Your task to perform on an android device: What's the latest video from GameTrailers? Image 0: 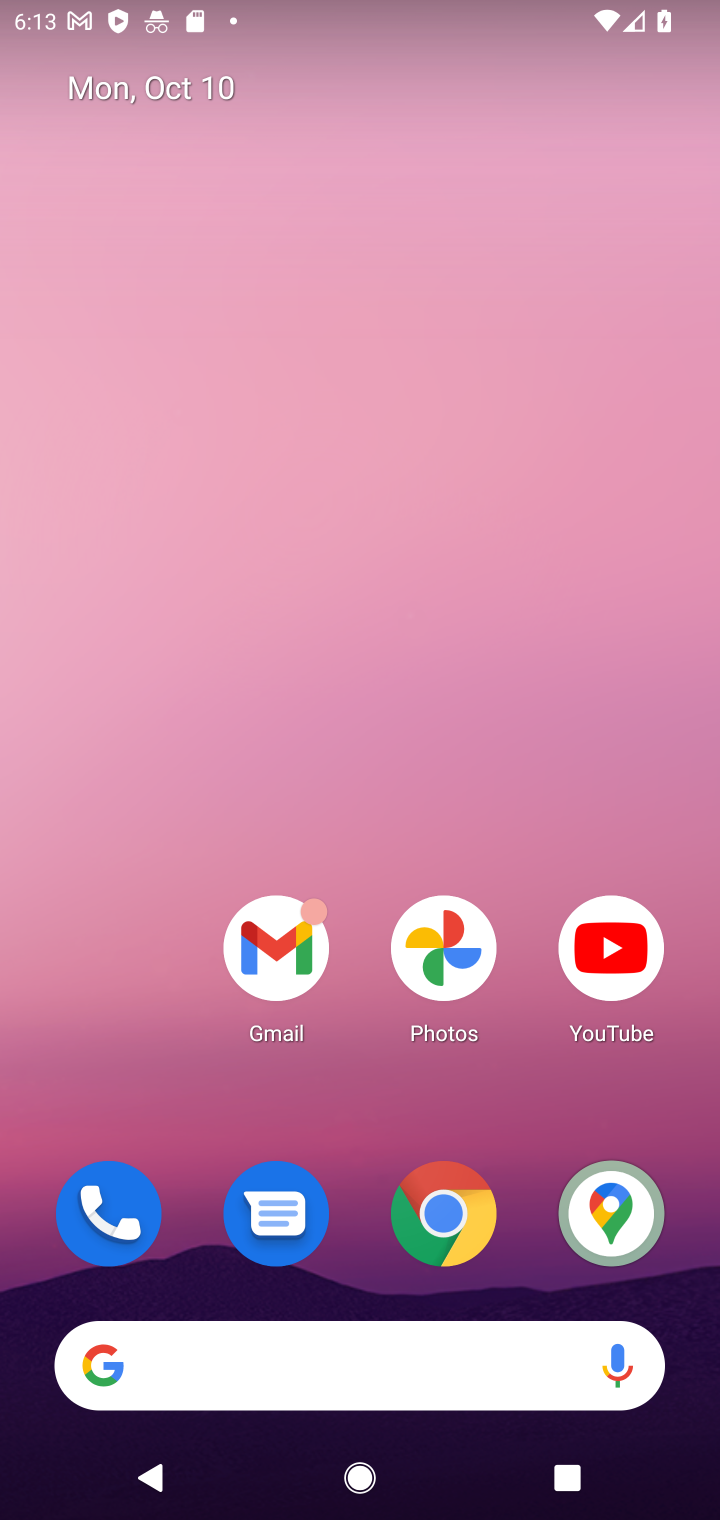
Step 0: click (614, 909)
Your task to perform on an android device: What's the latest video from GameTrailers? Image 1: 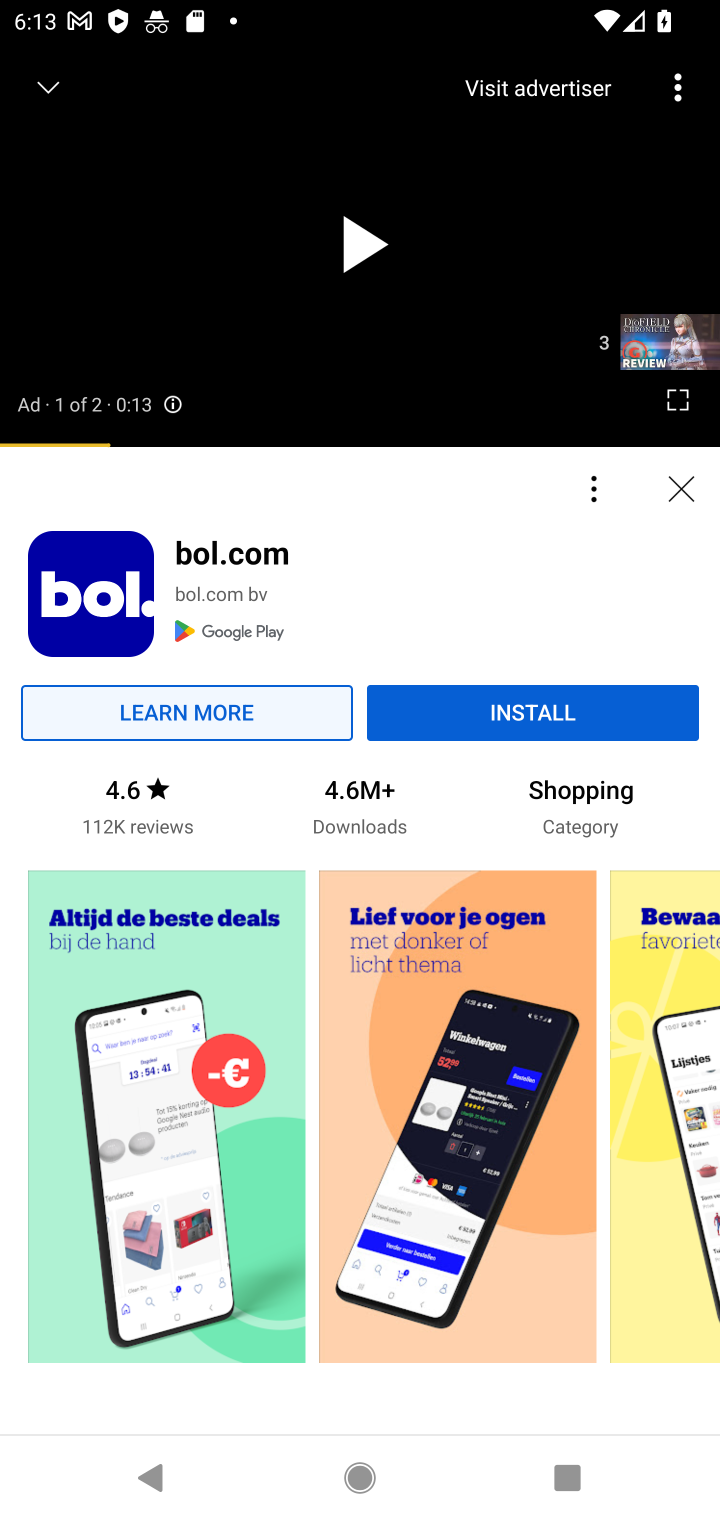
Step 1: click (42, 96)
Your task to perform on an android device: What's the latest video from GameTrailers? Image 2: 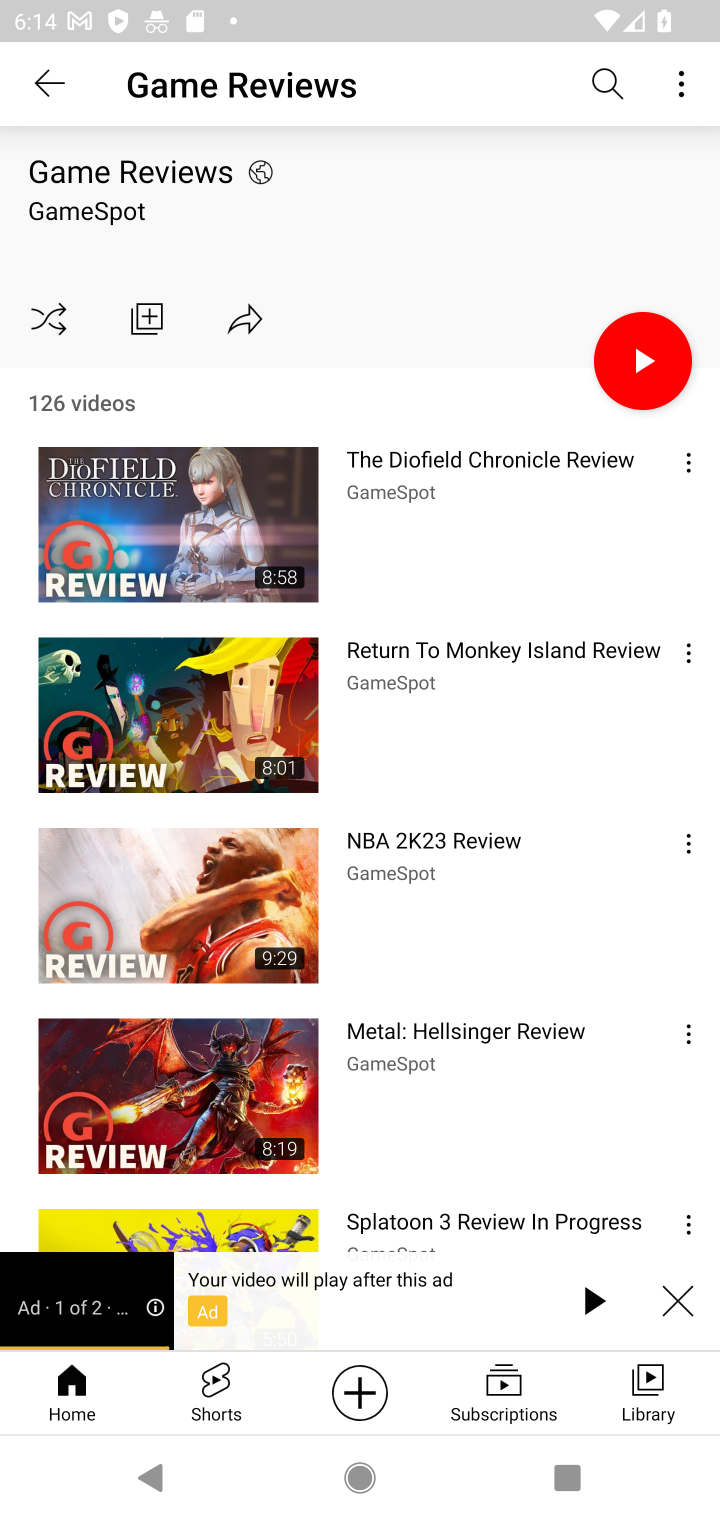
Step 2: click (609, 87)
Your task to perform on an android device: What's the latest video from GameTrailers? Image 3: 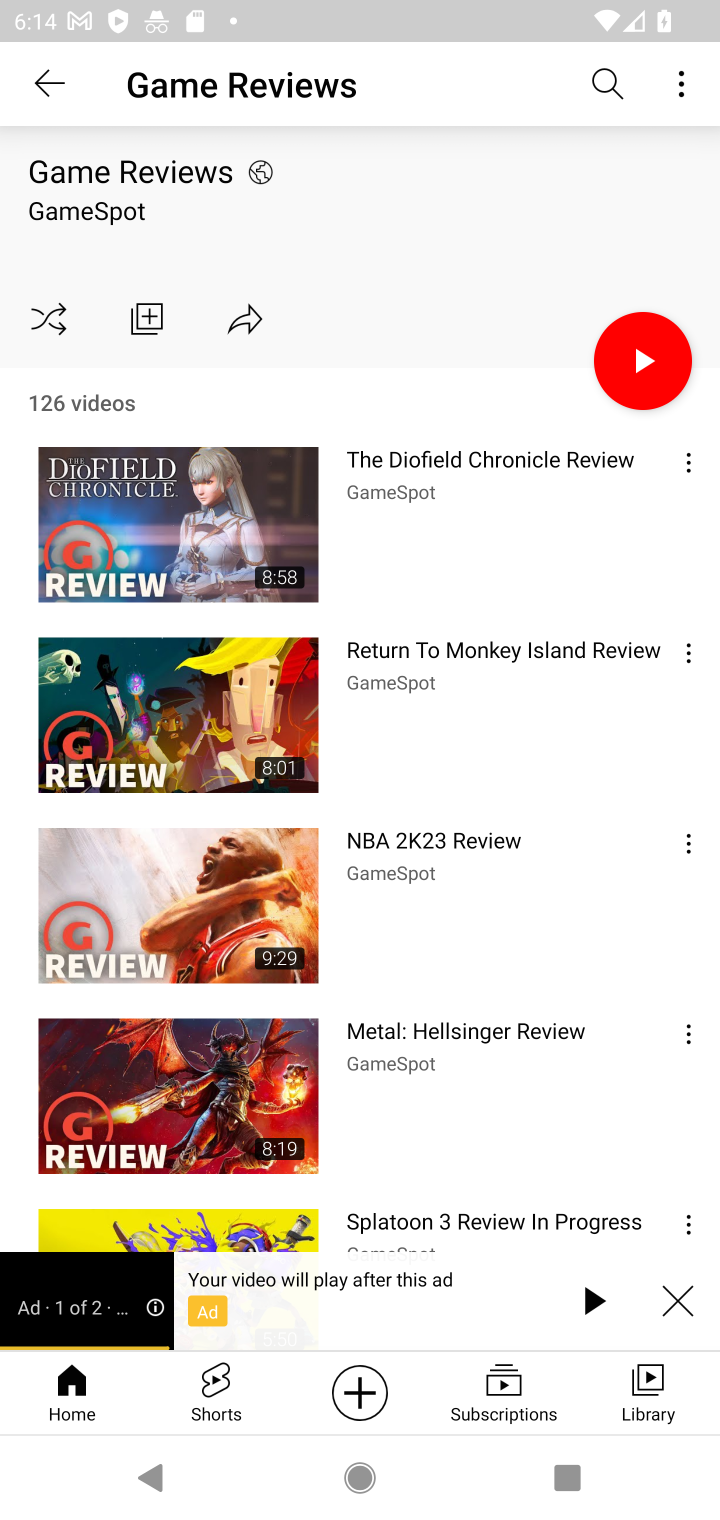
Step 3: click (51, 73)
Your task to perform on an android device: What's the latest video from GameTrailers? Image 4: 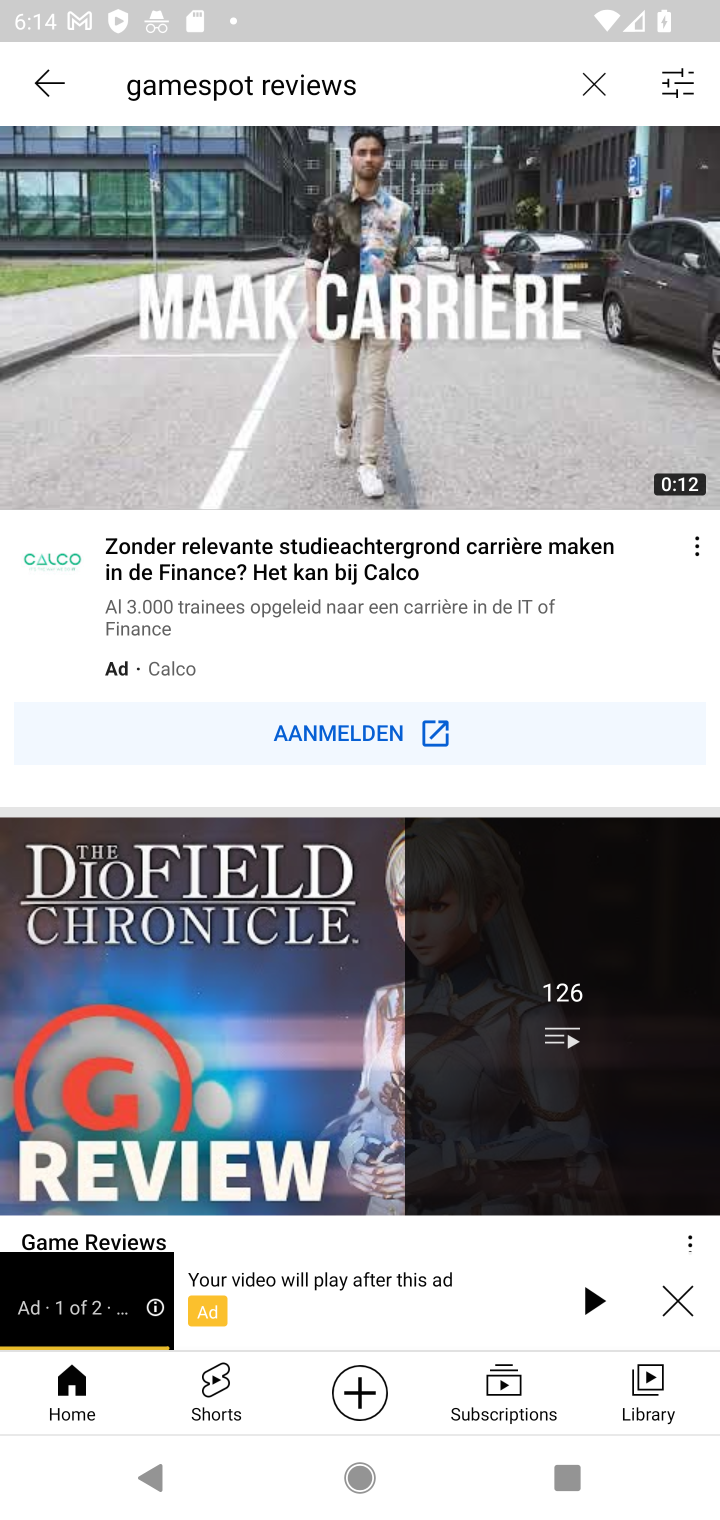
Step 4: click (600, 70)
Your task to perform on an android device: What's the latest video from GameTrailers? Image 5: 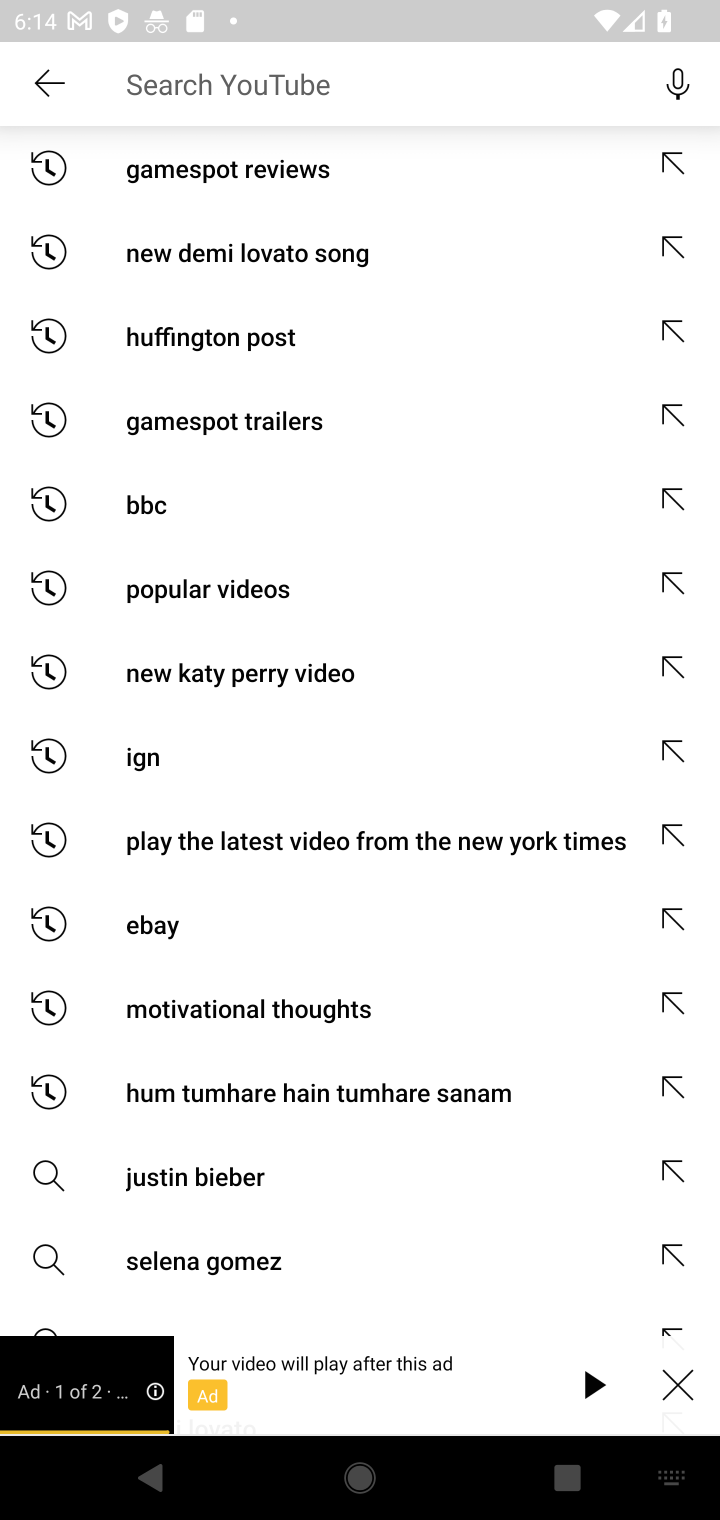
Step 5: click (383, 94)
Your task to perform on an android device: What's the latest video from GameTrailers? Image 6: 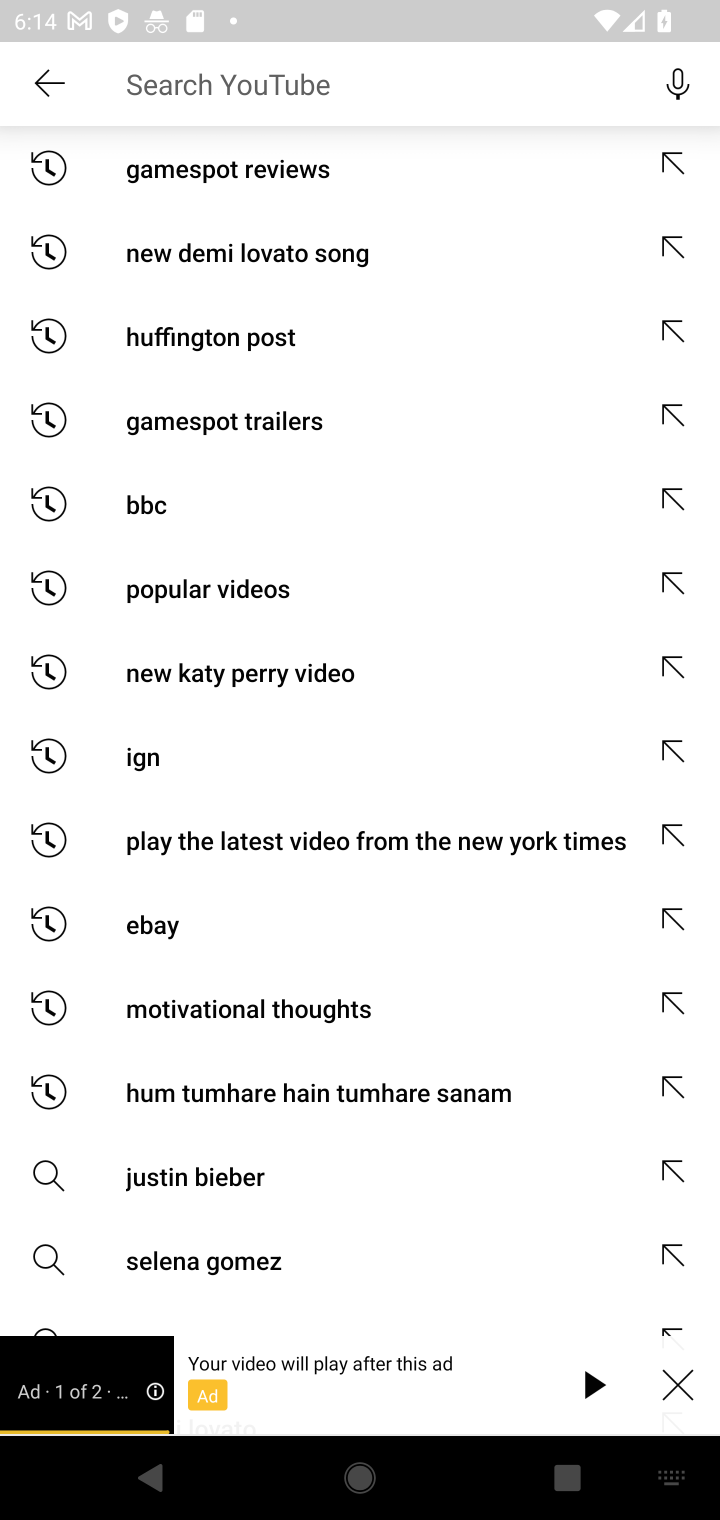
Step 6: type "GameTrailers"
Your task to perform on an android device: What's the latest video from GameTrailers? Image 7: 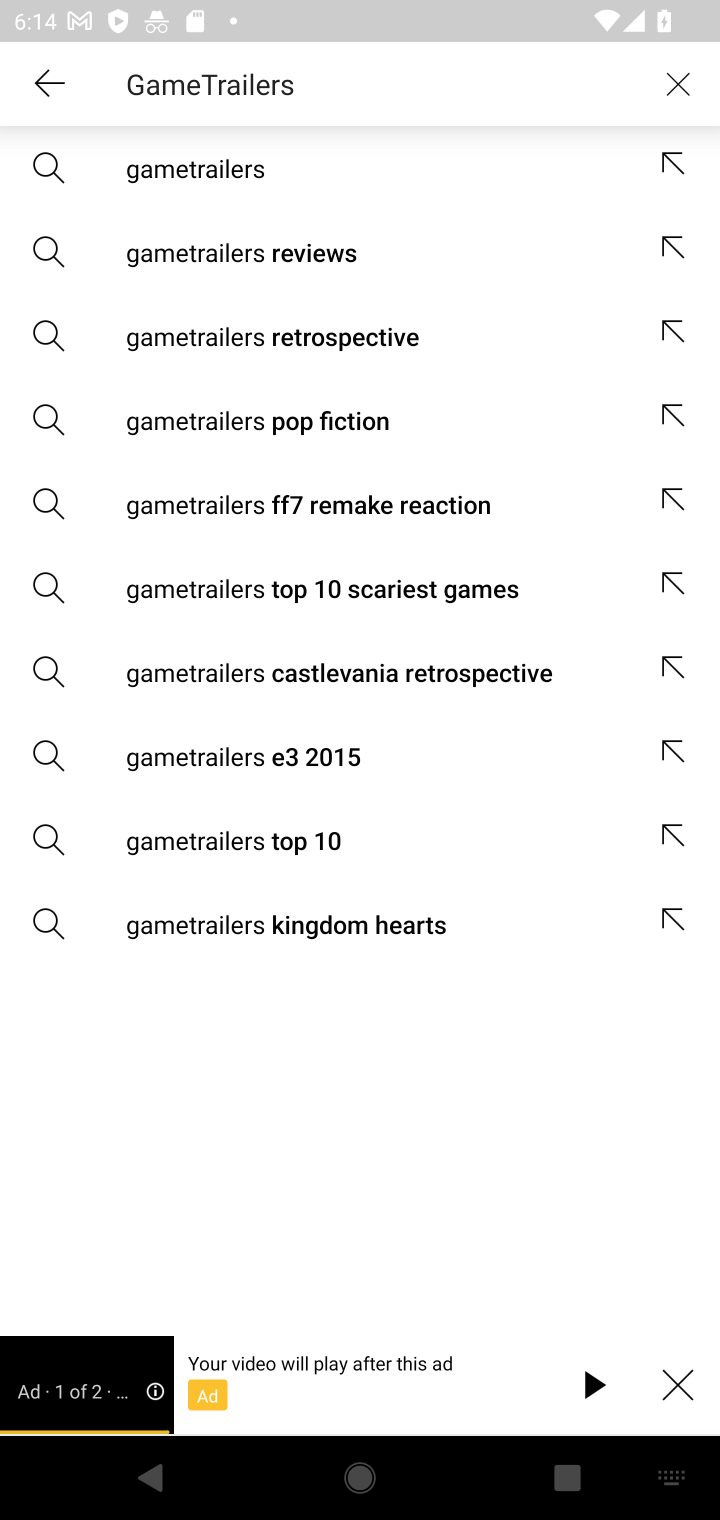
Step 7: click (260, 186)
Your task to perform on an android device: What's the latest video from GameTrailers? Image 8: 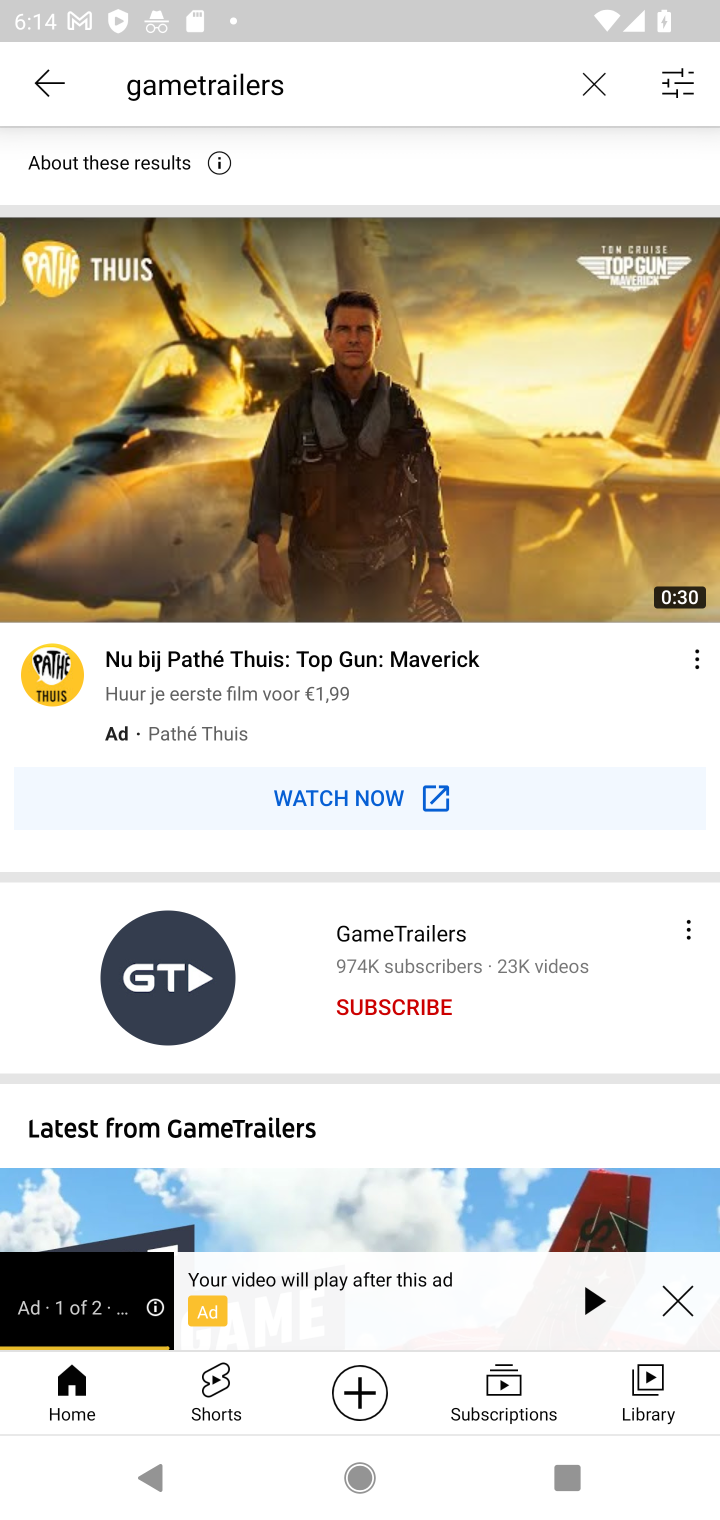
Step 8: task complete